Your task to perform on an android device: Go to Google Image 0: 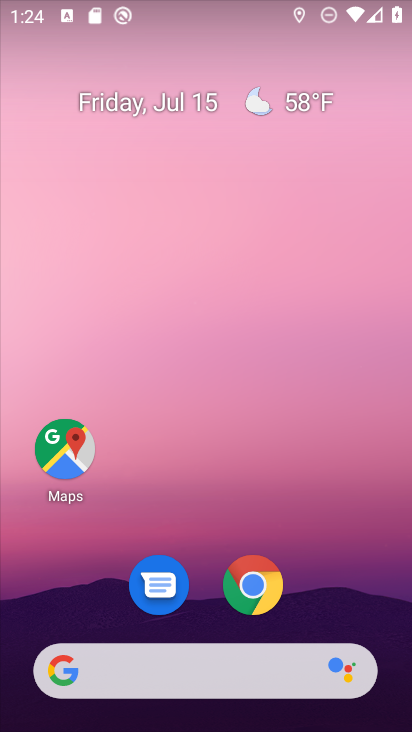
Step 0: click (219, 682)
Your task to perform on an android device: Go to Google Image 1: 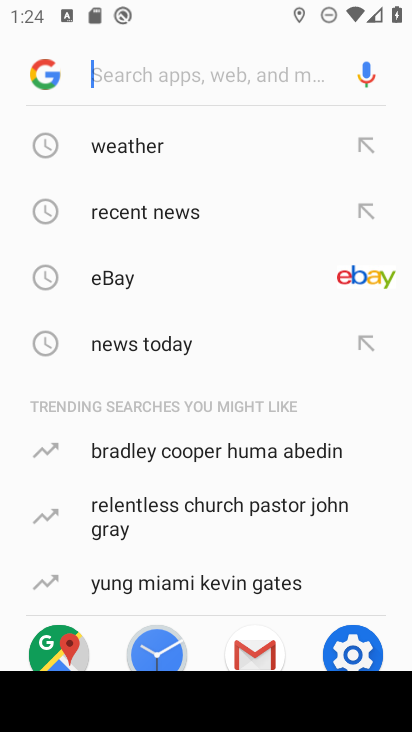
Step 1: click (45, 62)
Your task to perform on an android device: Go to Google Image 2: 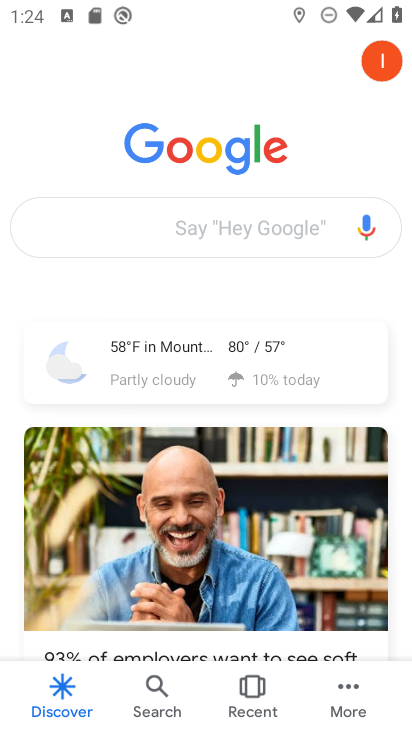
Step 2: task complete